Your task to perform on an android device: Go to CNN.com Image 0: 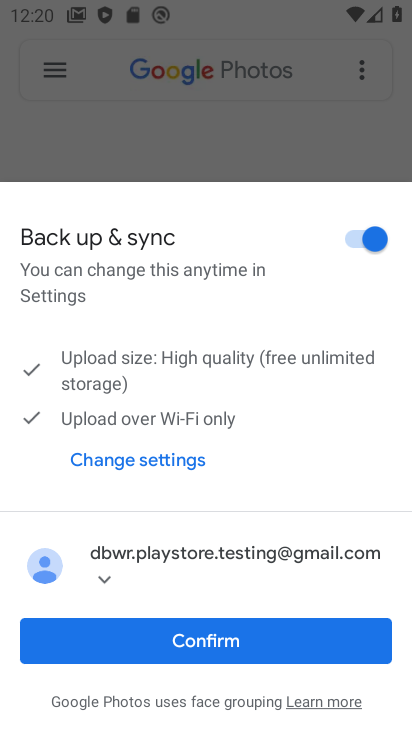
Step 0: press home button
Your task to perform on an android device: Go to CNN.com Image 1: 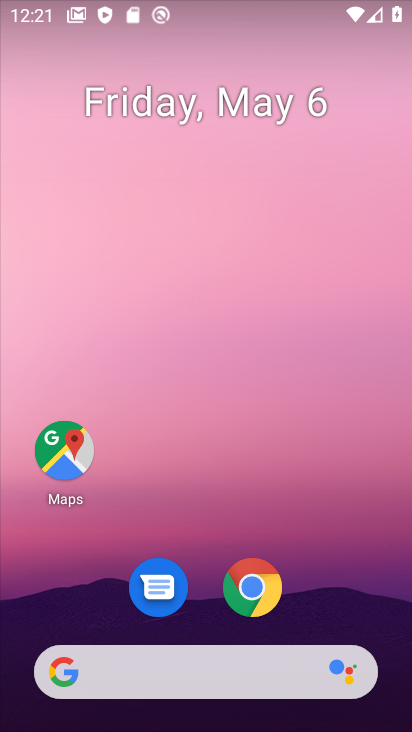
Step 1: click (241, 592)
Your task to perform on an android device: Go to CNN.com Image 2: 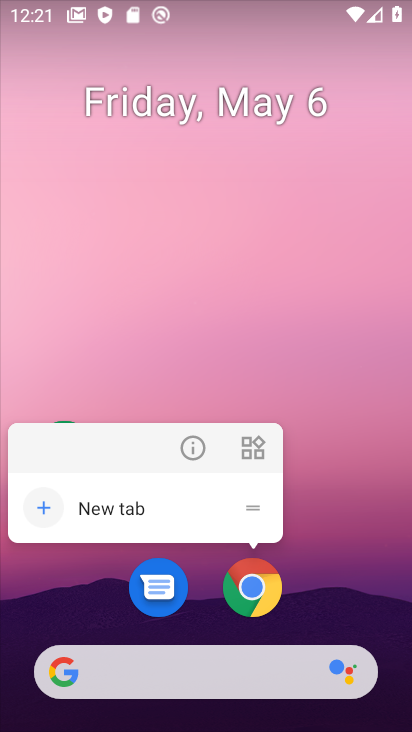
Step 2: click (257, 592)
Your task to perform on an android device: Go to CNN.com Image 3: 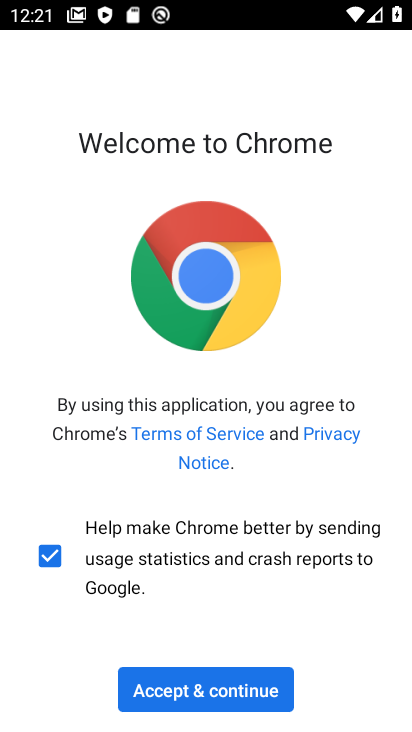
Step 3: click (244, 670)
Your task to perform on an android device: Go to CNN.com Image 4: 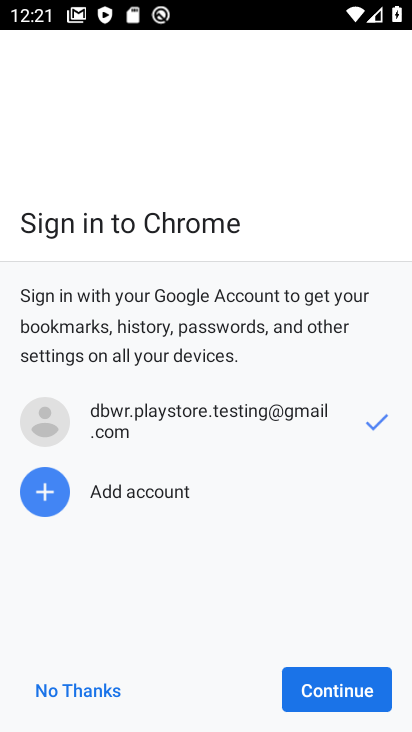
Step 4: click (309, 689)
Your task to perform on an android device: Go to CNN.com Image 5: 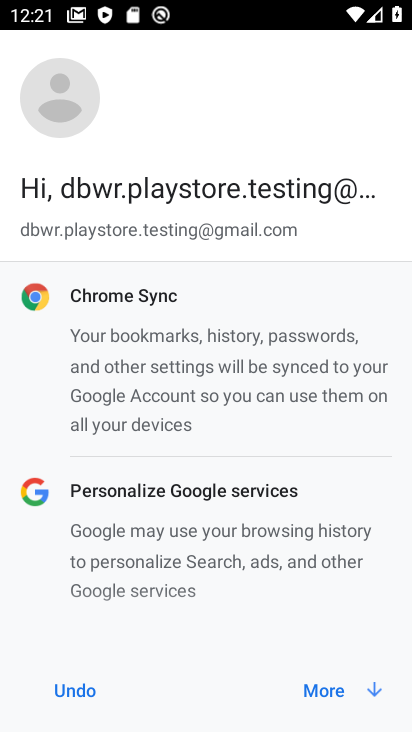
Step 5: click (326, 689)
Your task to perform on an android device: Go to CNN.com Image 6: 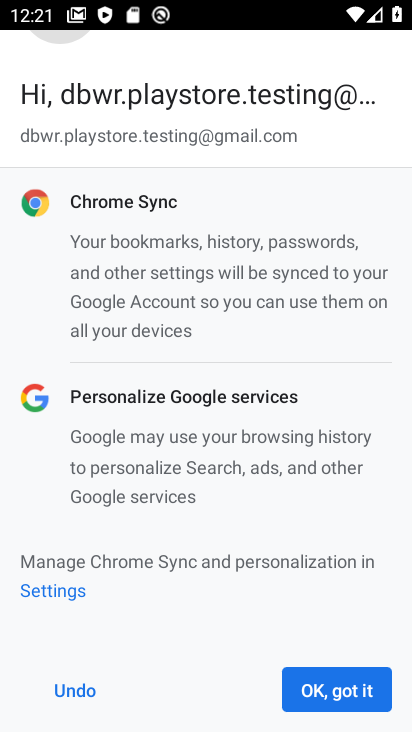
Step 6: click (327, 688)
Your task to perform on an android device: Go to CNN.com Image 7: 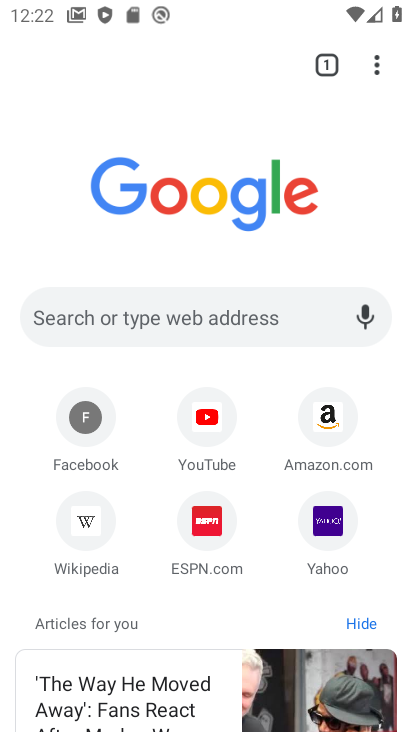
Step 7: click (171, 296)
Your task to perform on an android device: Go to CNN.com Image 8: 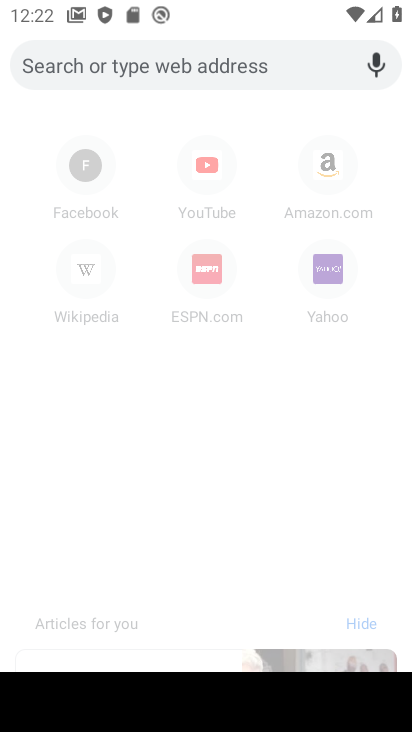
Step 8: type "cnn.com"
Your task to perform on an android device: Go to CNN.com Image 9: 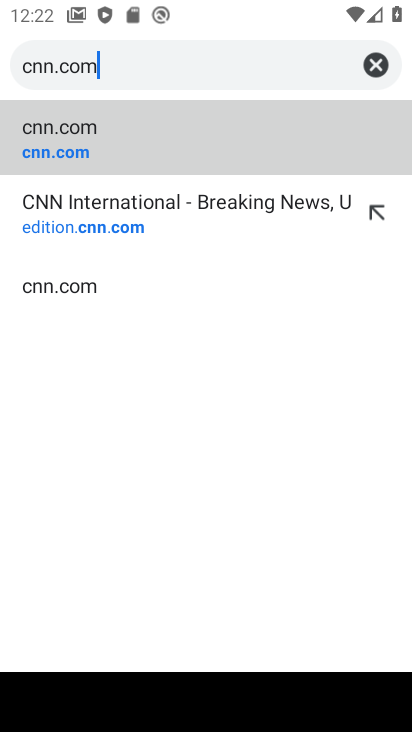
Step 9: click (148, 145)
Your task to perform on an android device: Go to CNN.com Image 10: 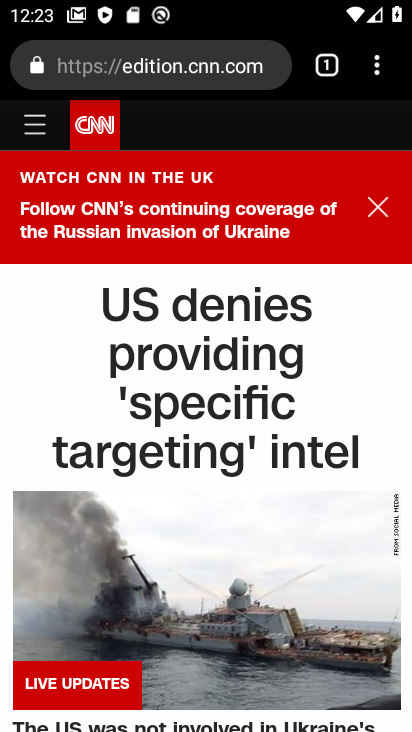
Step 10: task complete